Your task to perform on an android device: Go to internet settings Image 0: 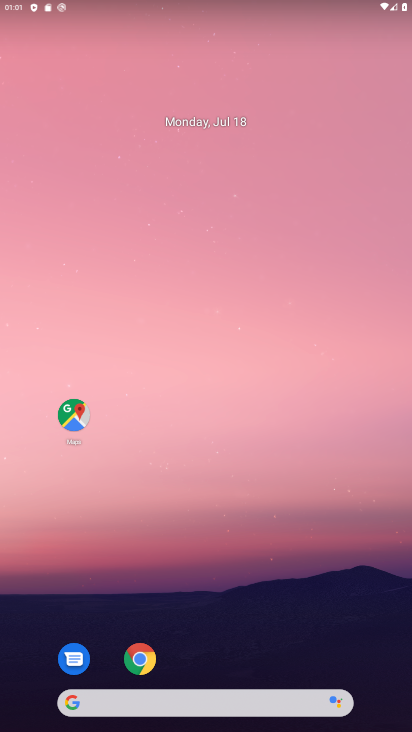
Step 0: drag from (247, 609) to (97, 13)
Your task to perform on an android device: Go to internet settings Image 1: 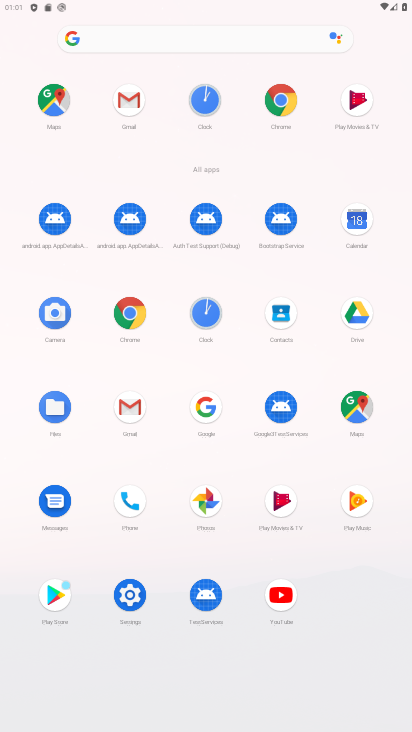
Step 1: click (129, 597)
Your task to perform on an android device: Go to internet settings Image 2: 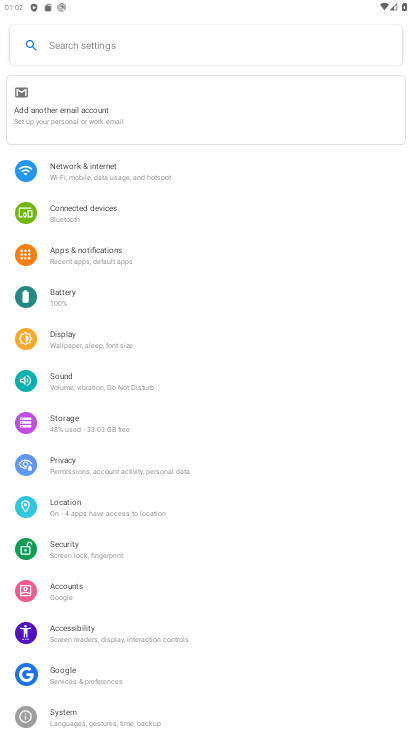
Step 2: click (104, 172)
Your task to perform on an android device: Go to internet settings Image 3: 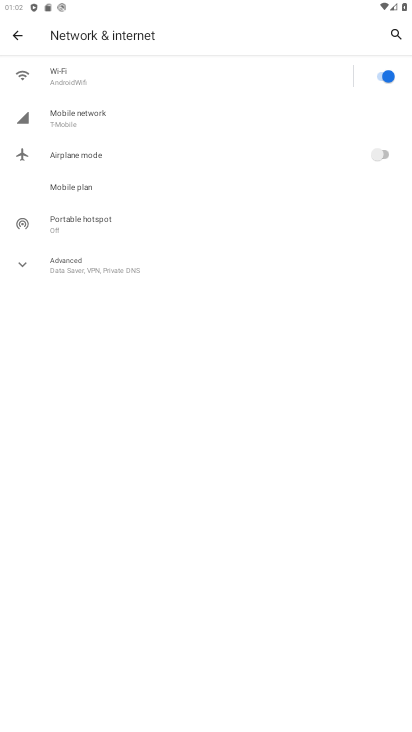
Step 3: click (88, 126)
Your task to perform on an android device: Go to internet settings Image 4: 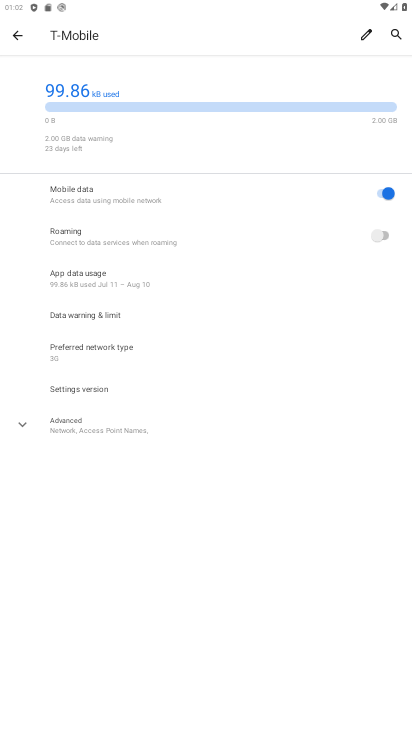
Step 4: task complete